Your task to perform on an android device: check data usage Image 0: 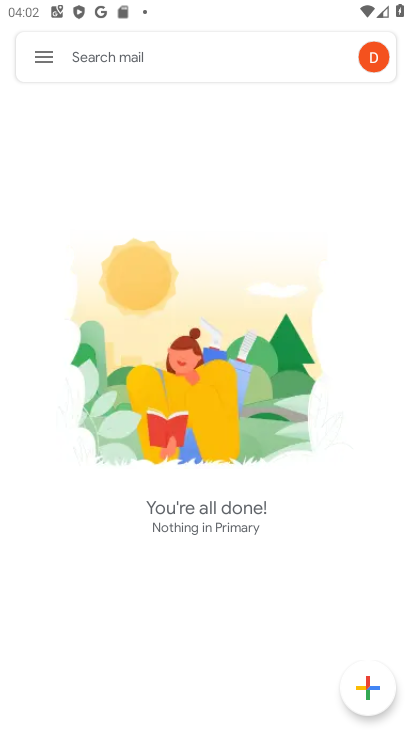
Step 0: press home button
Your task to perform on an android device: check data usage Image 1: 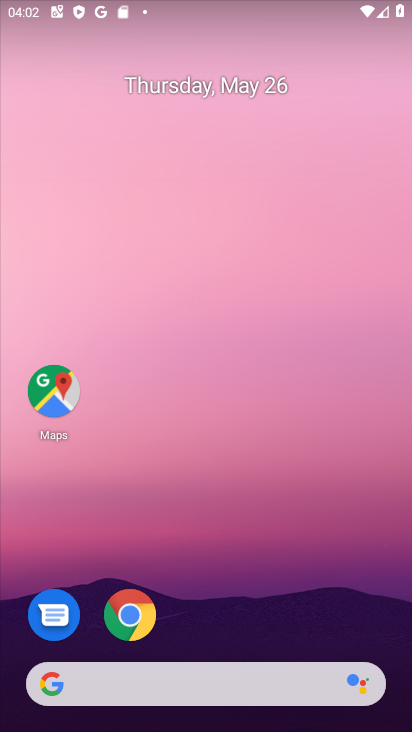
Step 1: drag from (195, 647) to (195, 243)
Your task to perform on an android device: check data usage Image 2: 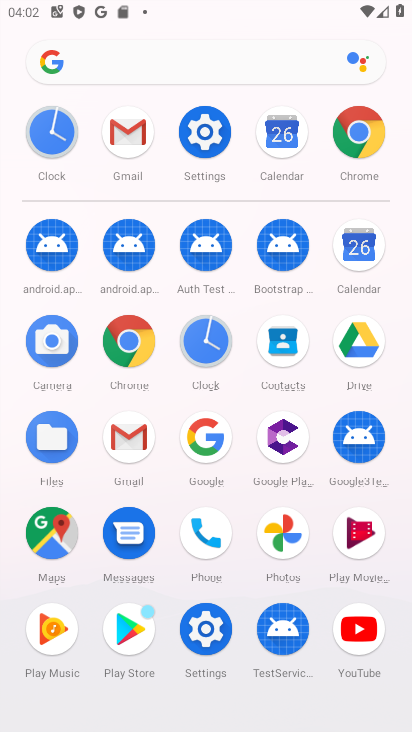
Step 2: click (221, 128)
Your task to perform on an android device: check data usage Image 3: 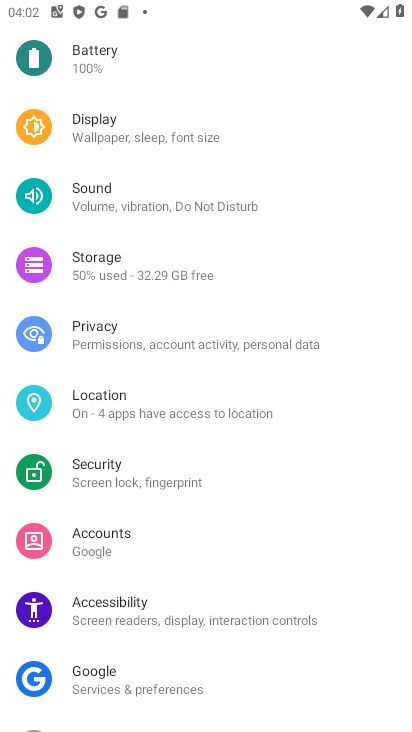
Step 3: drag from (190, 138) to (162, 605)
Your task to perform on an android device: check data usage Image 4: 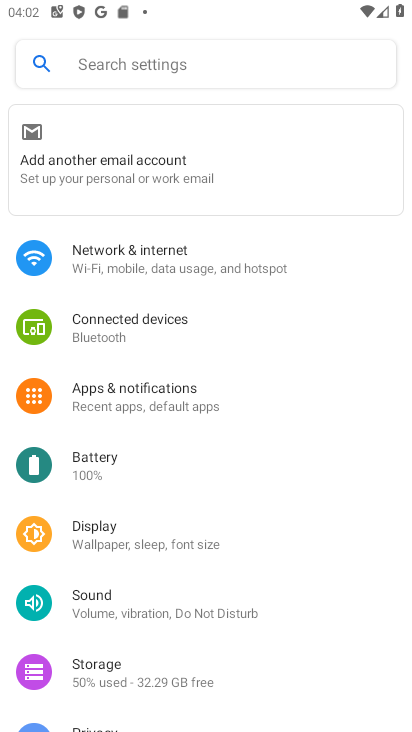
Step 4: click (132, 258)
Your task to perform on an android device: check data usage Image 5: 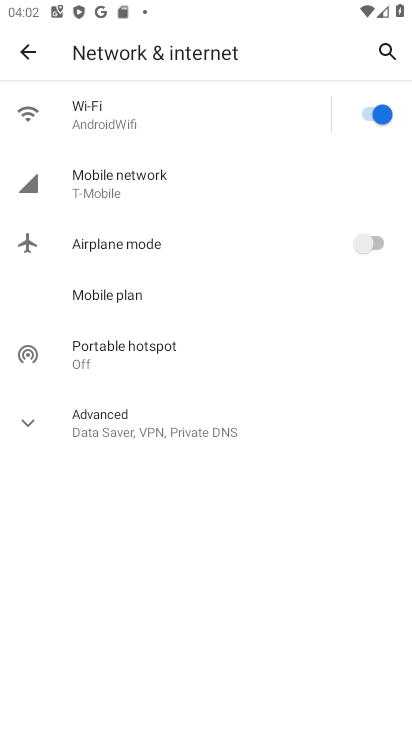
Step 5: click (131, 184)
Your task to perform on an android device: check data usage Image 6: 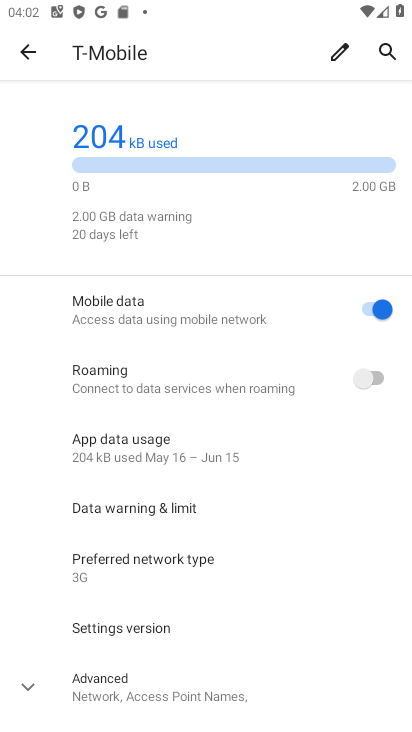
Step 6: task complete